Your task to perform on an android device: toggle notification dots Image 0: 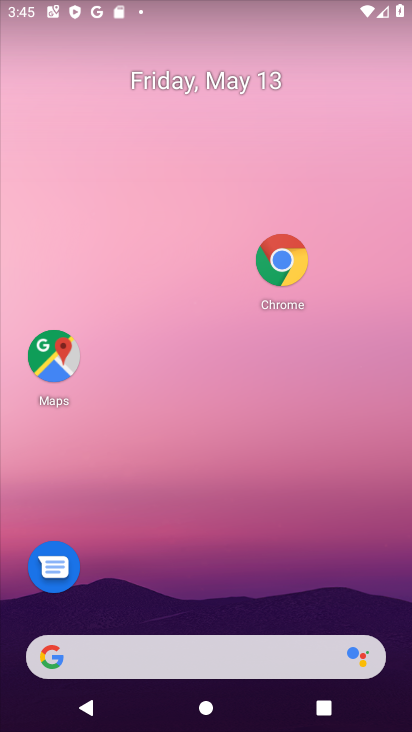
Step 0: drag from (321, 713) to (160, 145)
Your task to perform on an android device: toggle notification dots Image 1: 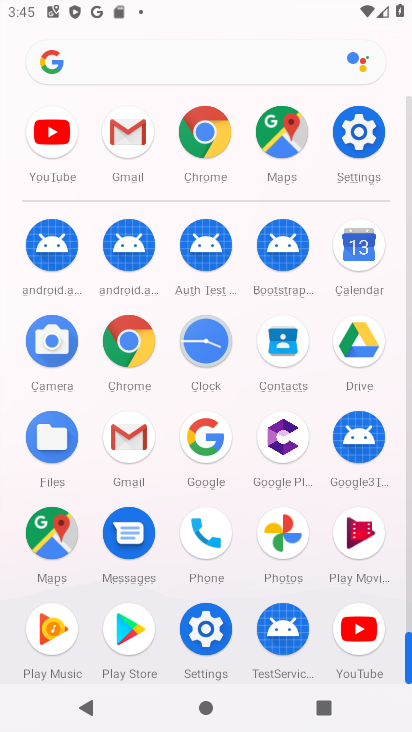
Step 1: click (360, 144)
Your task to perform on an android device: toggle notification dots Image 2: 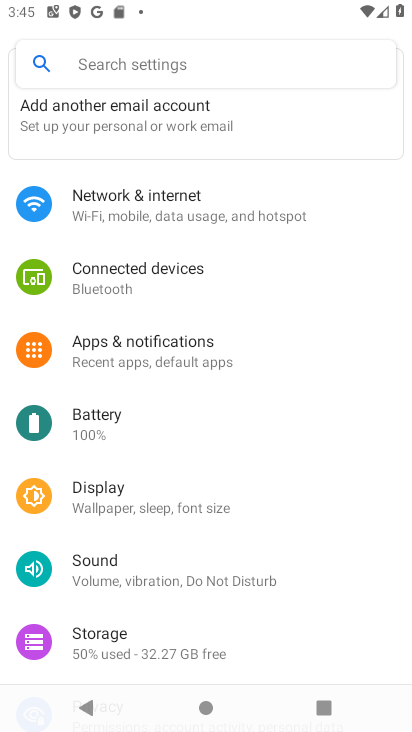
Step 2: click (134, 349)
Your task to perform on an android device: toggle notification dots Image 3: 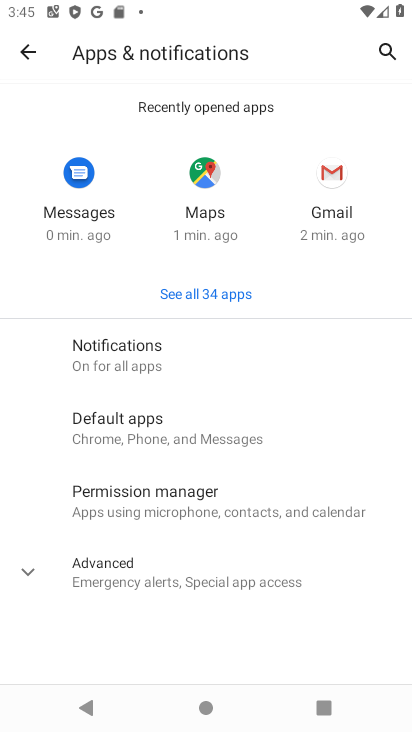
Step 3: click (101, 356)
Your task to perform on an android device: toggle notification dots Image 4: 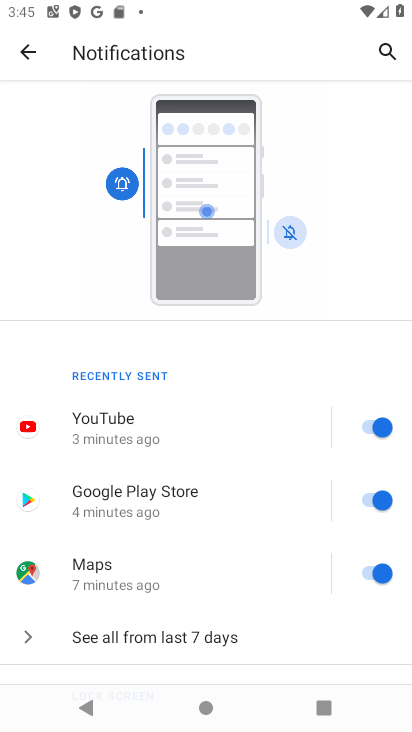
Step 4: drag from (205, 610) to (183, 287)
Your task to perform on an android device: toggle notification dots Image 5: 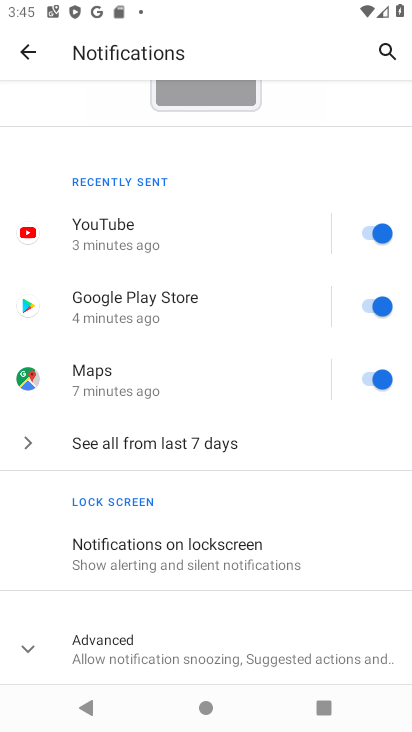
Step 5: drag from (238, 502) to (223, 194)
Your task to perform on an android device: toggle notification dots Image 6: 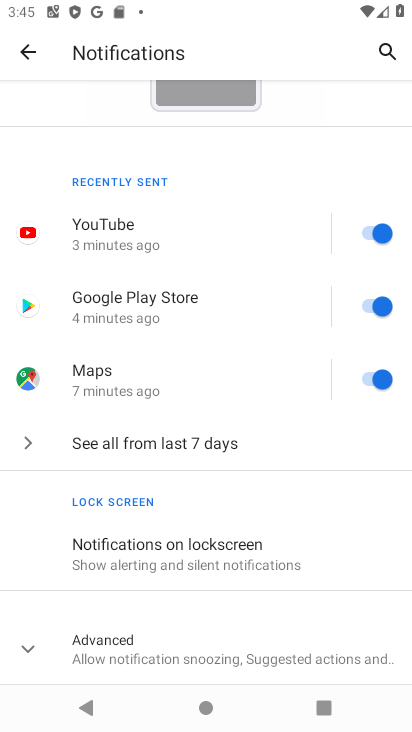
Step 6: drag from (211, 212) to (211, 168)
Your task to perform on an android device: toggle notification dots Image 7: 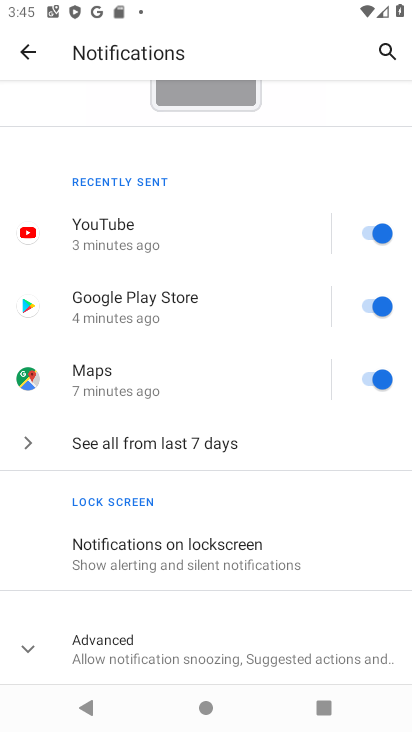
Step 7: drag from (265, 537) to (223, 257)
Your task to perform on an android device: toggle notification dots Image 8: 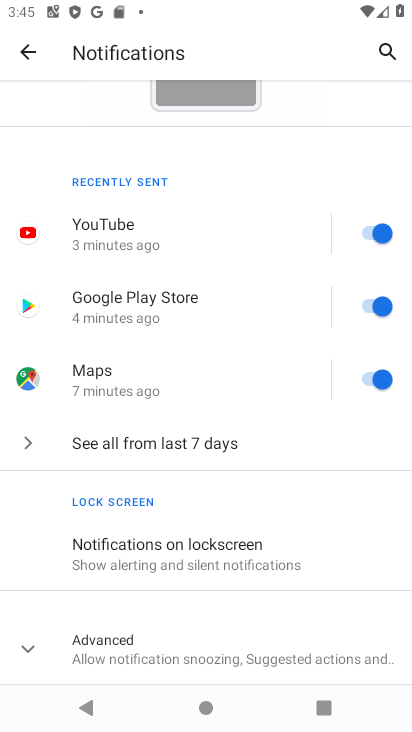
Step 8: drag from (278, 442) to (193, 95)
Your task to perform on an android device: toggle notification dots Image 9: 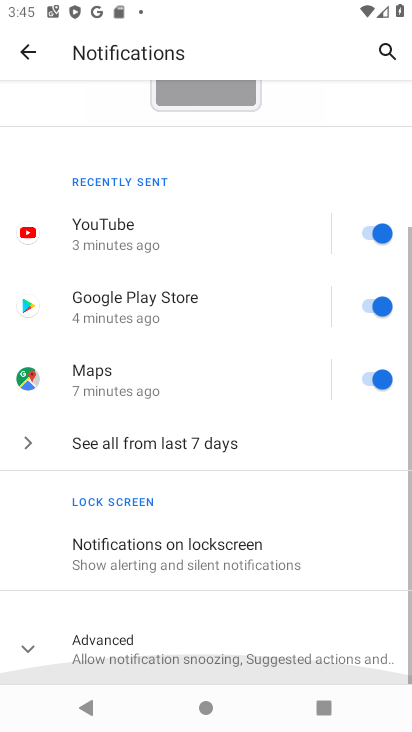
Step 9: drag from (294, 416) to (255, 100)
Your task to perform on an android device: toggle notification dots Image 10: 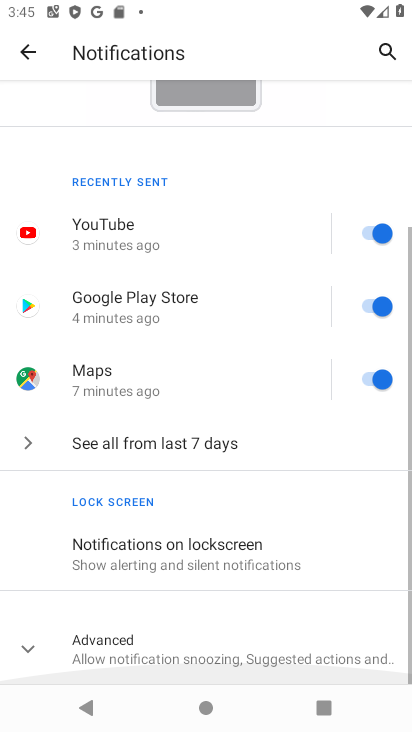
Step 10: drag from (246, 471) to (251, 113)
Your task to perform on an android device: toggle notification dots Image 11: 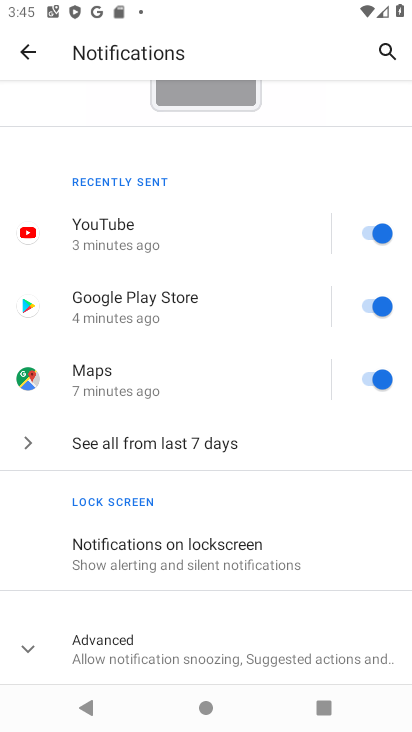
Step 11: click (116, 650)
Your task to perform on an android device: toggle notification dots Image 12: 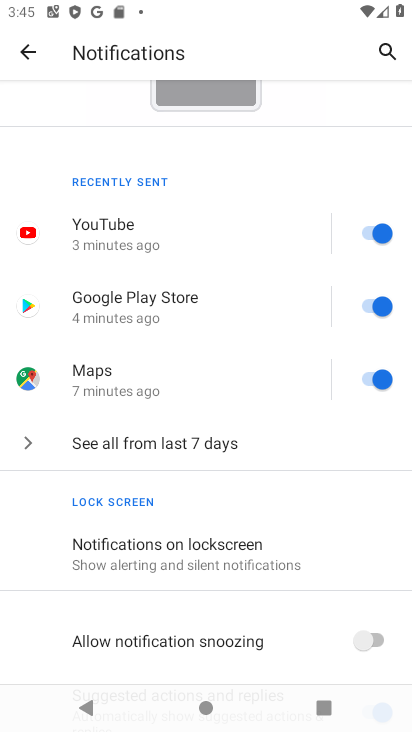
Step 12: drag from (191, 626) to (188, 308)
Your task to perform on an android device: toggle notification dots Image 13: 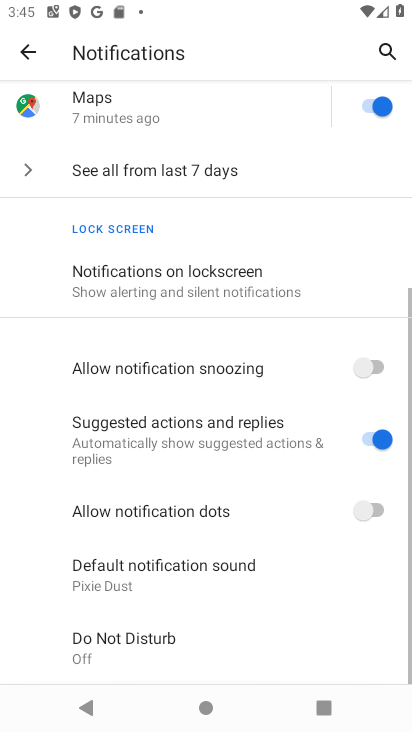
Step 13: drag from (197, 607) to (194, 247)
Your task to perform on an android device: toggle notification dots Image 14: 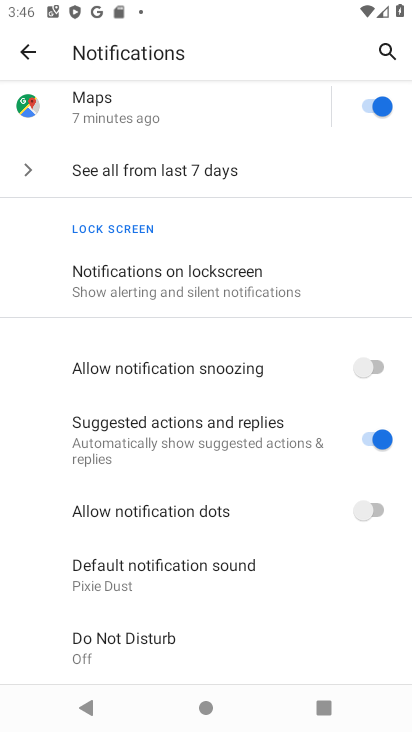
Step 14: click (366, 508)
Your task to perform on an android device: toggle notification dots Image 15: 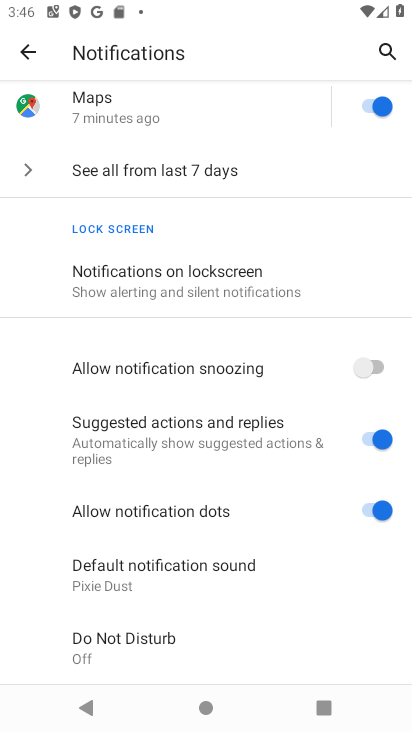
Step 15: task complete